Your task to perform on an android device: toggle data saver in the chrome app Image 0: 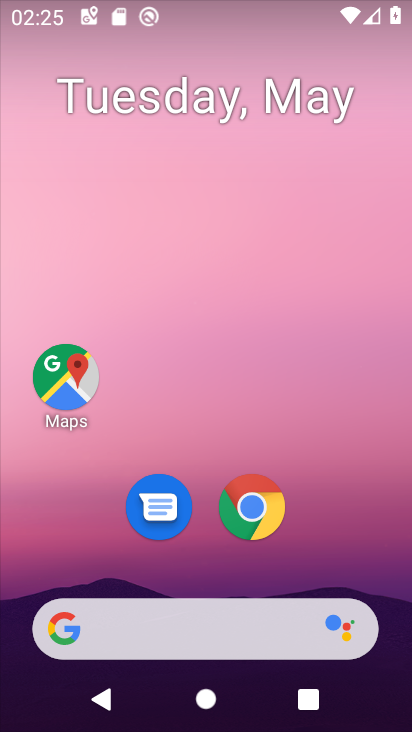
Step 0: click (246, 521)
Your task to perform on an android device: toggle data saver in the chrome app Image 1: 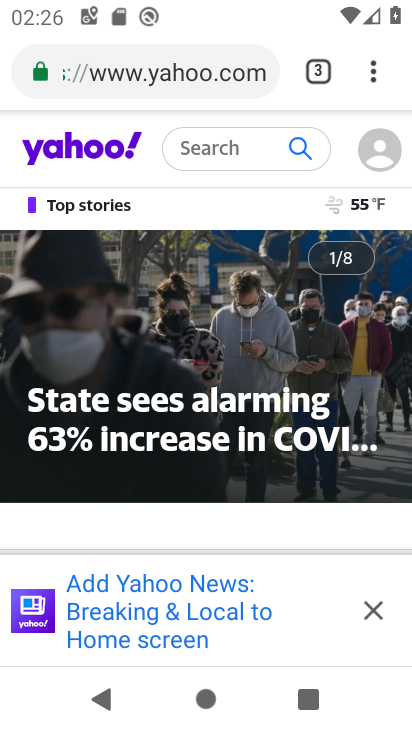
Step 1: drag from (380, 73) to (176, 494)
Your task to perform on an android device: toggle data saver in the chrome app Image 2: 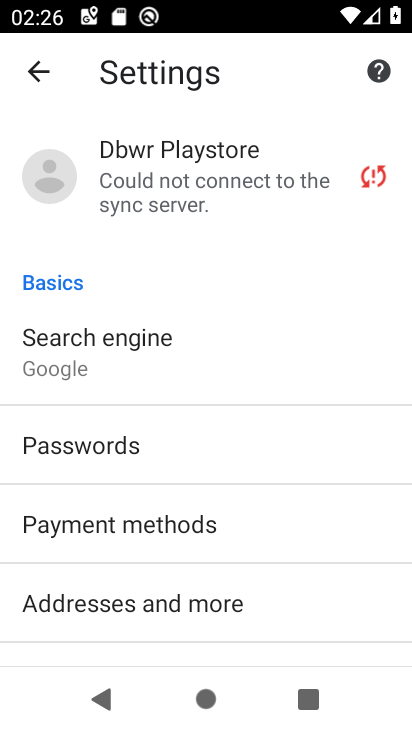
Step 2: drag from (213, 596) to (285, 278)
Your task to perform on an android device: toggle data saver in the chrome app Image 3: 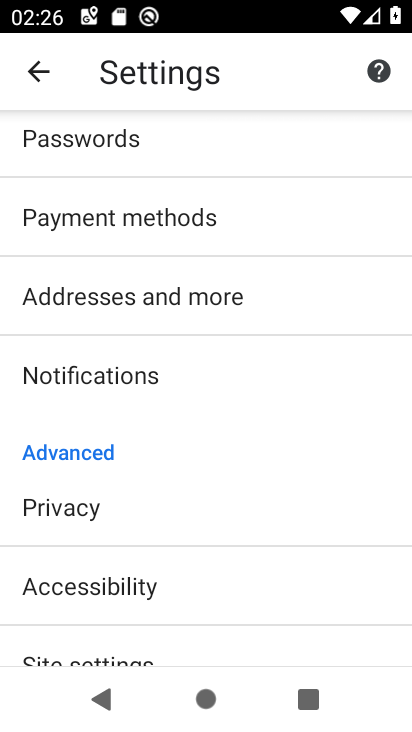
Step 3: drag from (202, 606) to (262, 303)
Your task to perform on an android device: toggle data saver in the chrome app Image 4: 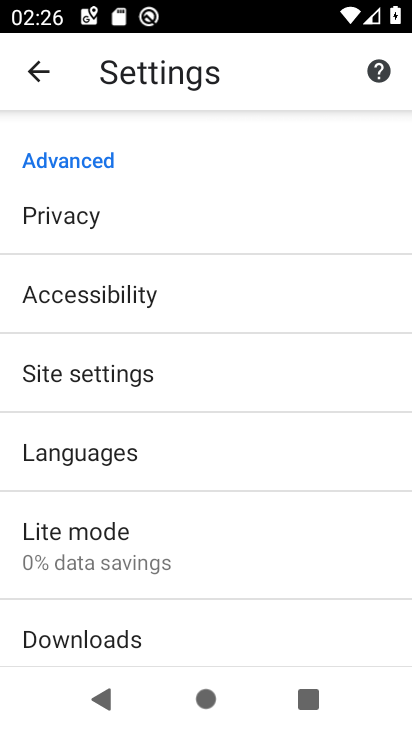
Step 4: click (157, 544)
Your task to perform on an android device: toggle data saver in the chrome app Image 5: 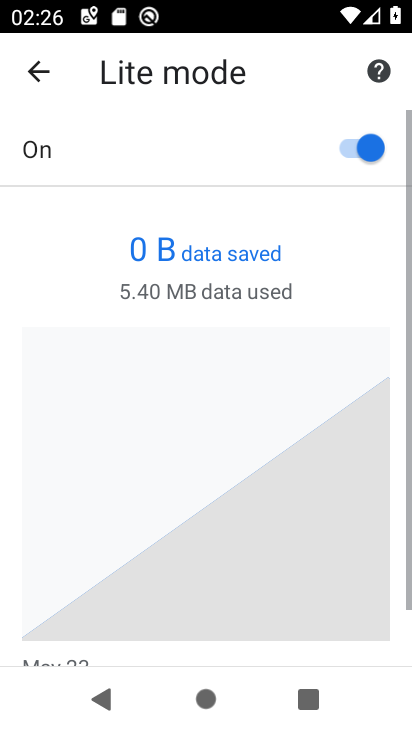
Step 5: click (350, 151)
Your task to perform on an android device: toggle data saver in the chrome app Image 6: 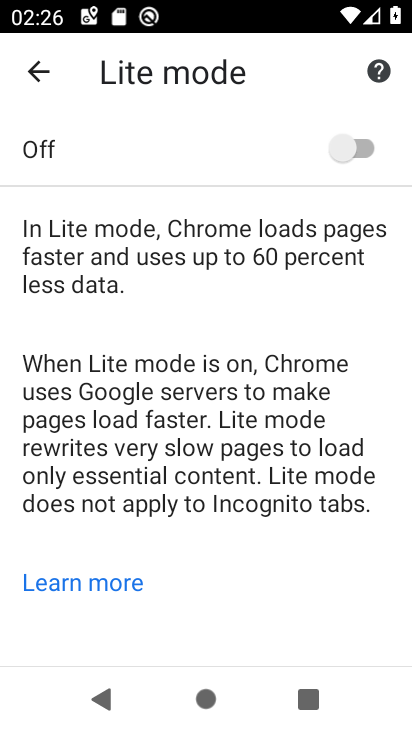
Step 6: task complete